Your task to perform on an android device: change the clock display to digital Image 0: 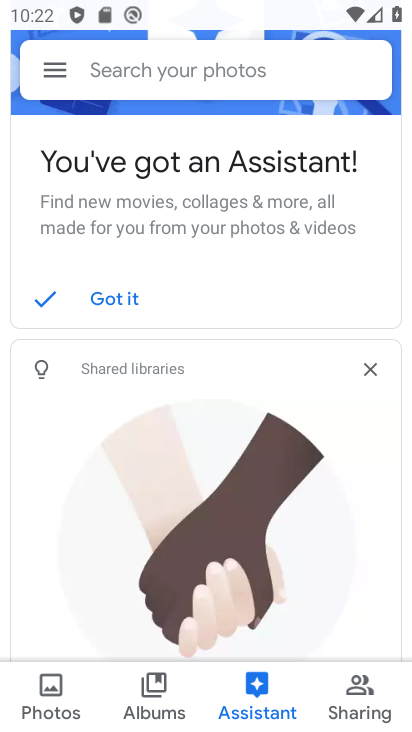
Step 0: drag from (194, 586) to (273, 323)
Your task to perform on an android device: change the clock display to digital Image 1: 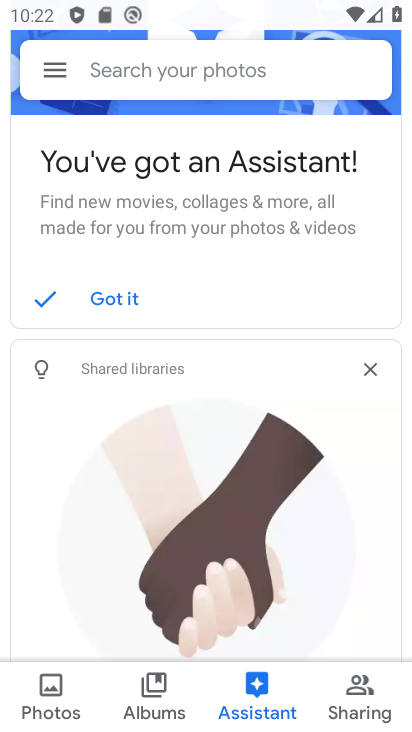
Step 1: press home button
Your task to perform on an android device: change the clock display to digital Image 2: 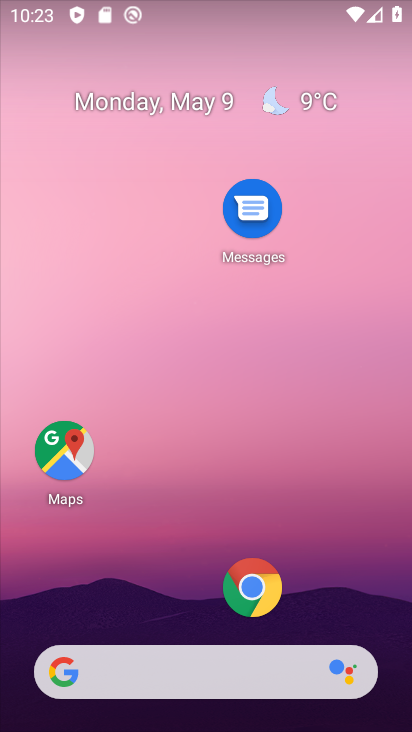
Step 2: drag from (219, 565) to (293, 301)
Your task to perform on an android device: change the clock display to digital Image 3: 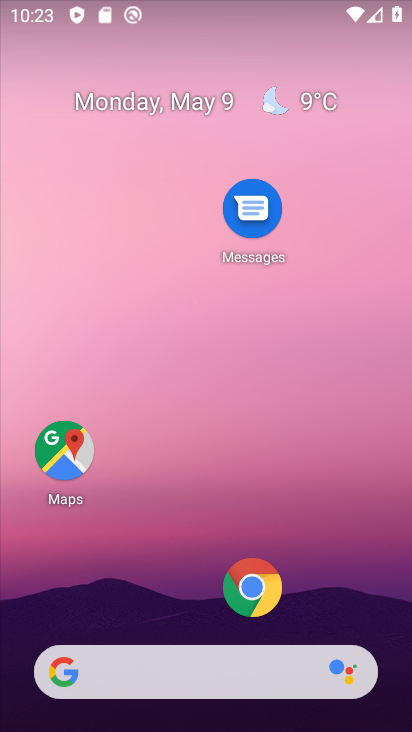
Step 3: drag from (203, 634) to (299, 232)
Your task to perform on an android device: change the clock display to digital Image 4: 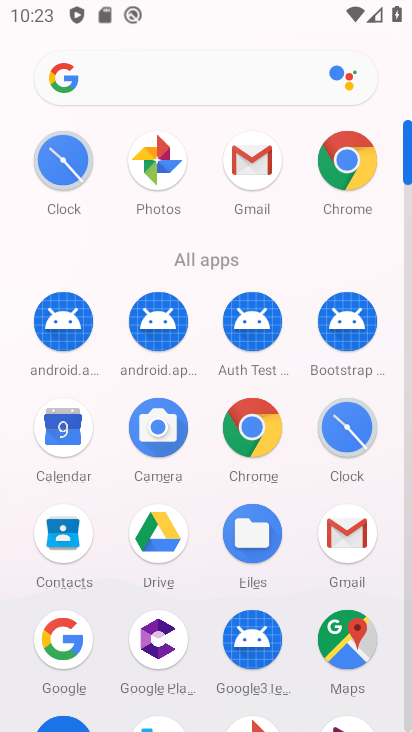
Step 4: click (349, 422)
Your task to perform on an android device: change the clock display to digital Image 5: 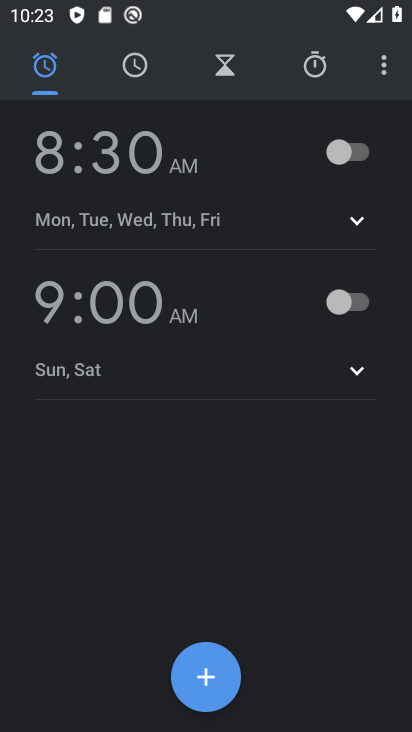
Step 5: click (313, 74)
Your task to perform on an android device: change the clock display to digital Image 6: 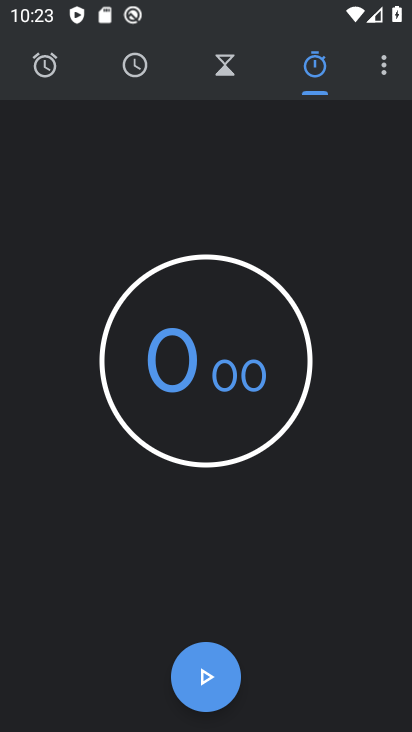
Step 6: click (368, 58)
Your task to perform on an android device: change the clock display to digital Image 7: 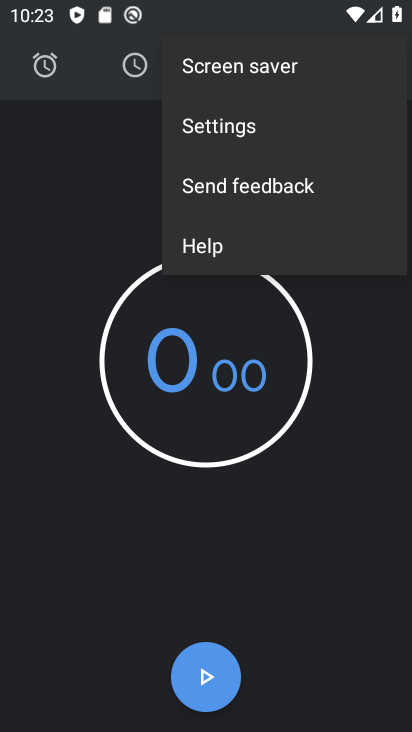
Step 7: click (263, 142)
Your task to perform on an android device: change the clock display to digital Image 8: 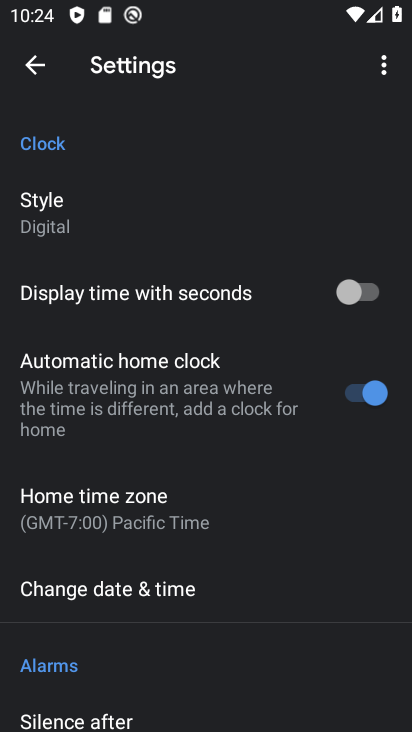
Step 8: click (98, 215)
Your task to perform on an android device: change the clock display to digital Image 9: 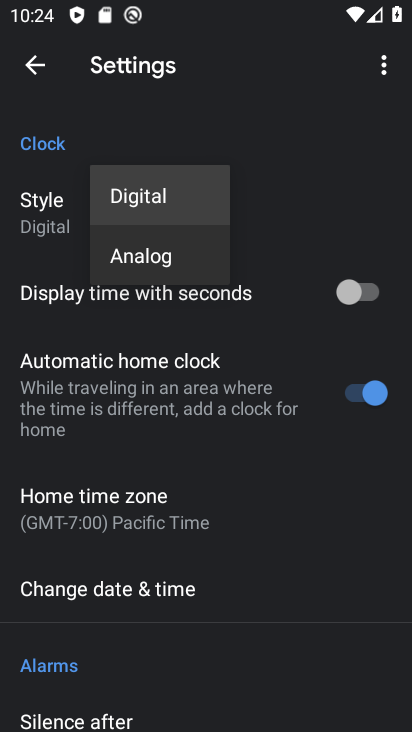
Step 9: click (147, 206)
Your task to perform on an android device: change the clock display to digital Image 10: 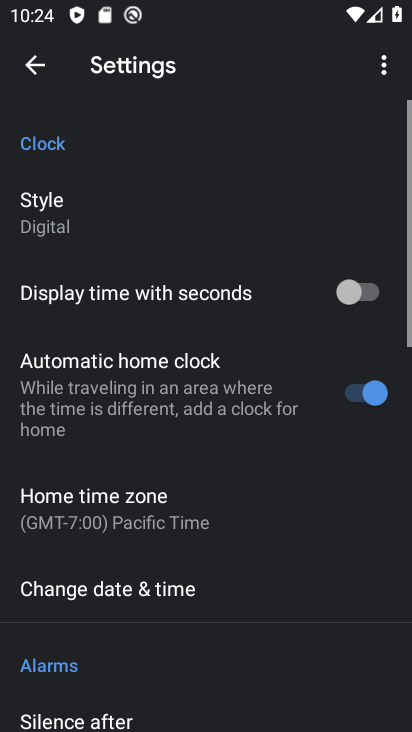
Step 10: task complete